Your task to perform on an android device: Go to sound settings Image 0: 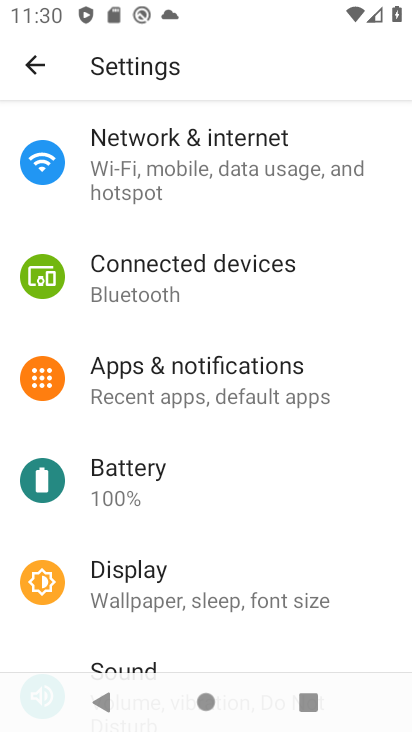
Step 0: drag from (125, 583) to (267, 276)
Your task to perform on an android device: Go to sound settings Image 1: 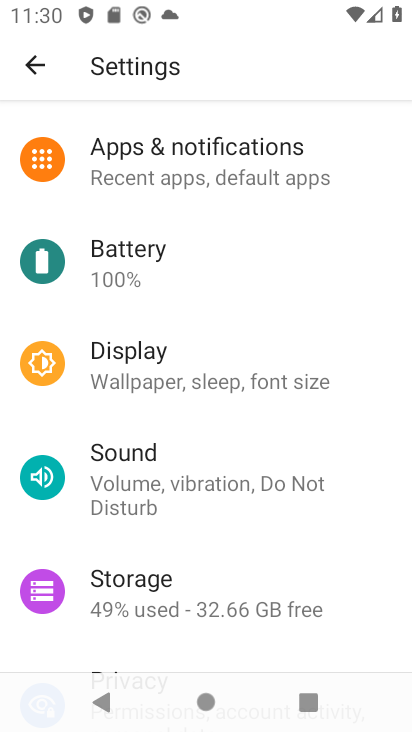
Step 1: click (144, 484)
Your task to perform on an android device: Go to sound settings Image 2: 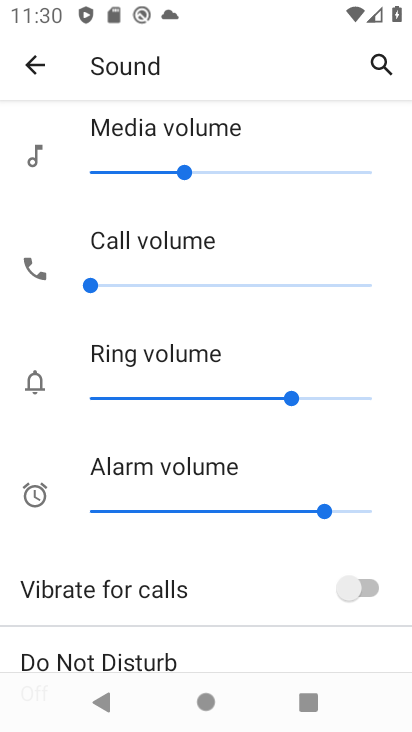
Step 2: task complete